Your task to perform on an android device: turn on sleep mode Image 0: 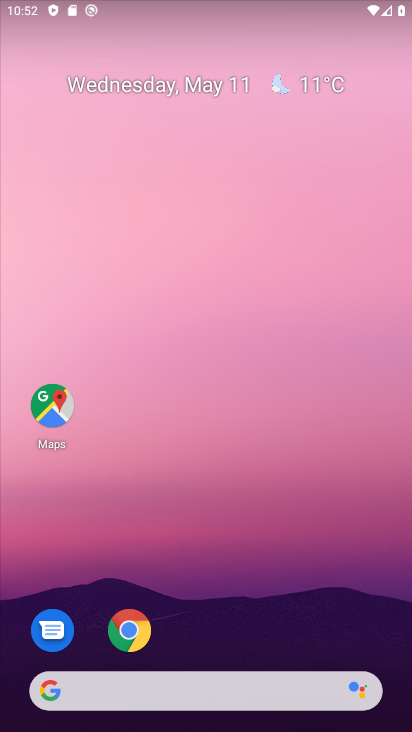
Step 0: drag from (241, 496) to (262, 310)
Your task to perform on an android device: turn on sleep mode Image 1: 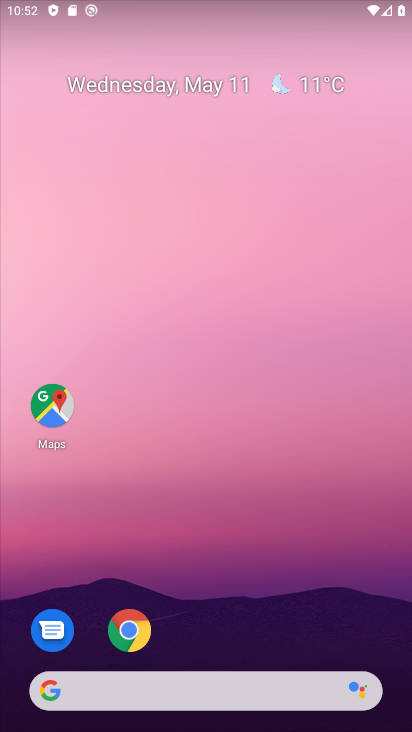
Step 1: drag from (201, 663) to (239, 353)
Your task to perform on an android device: turn on sleep mode Image 2: 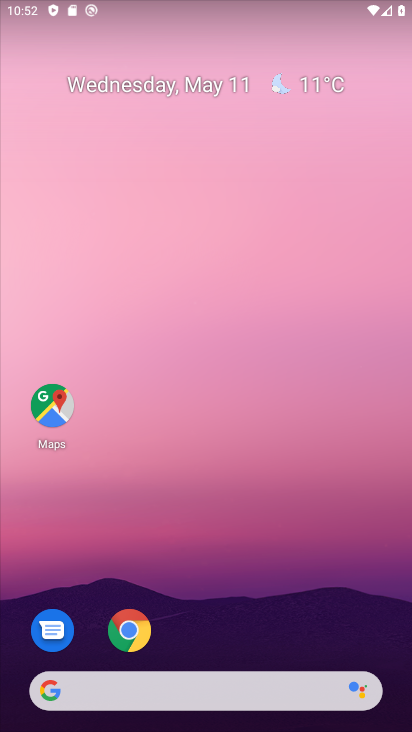
Step 2: drag from (231, 650) to (262, 226)
Your task to perform on an android device: turn on sleep mode Image 3: 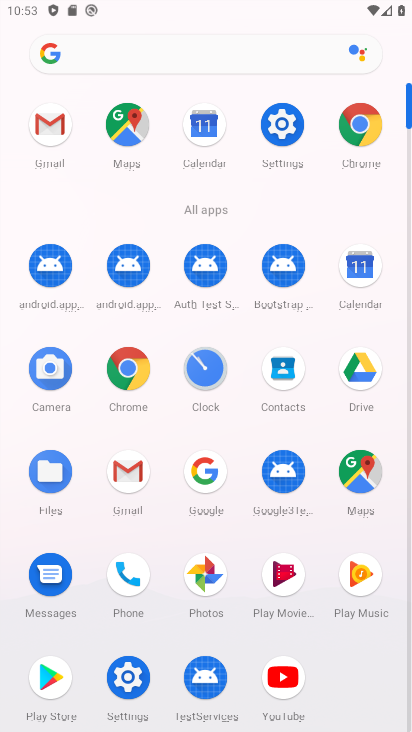
Step 3: click (141, 689)
Your task to perform on an android device: turn on sleep mode Image 4: 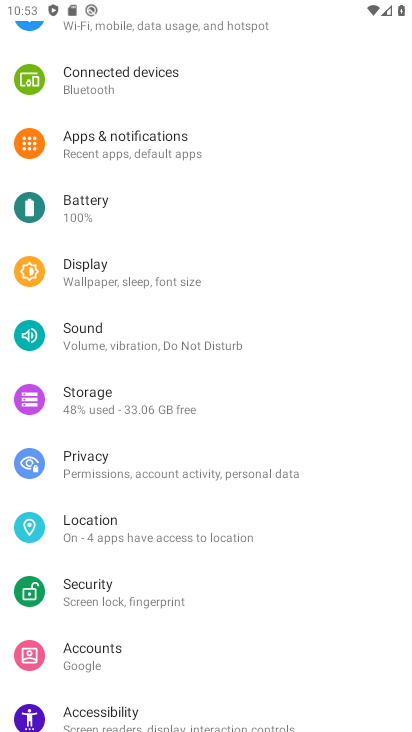
Step 4: click (114, 269)
Your task to perform on an android device: turn on sleep mode Image 5: 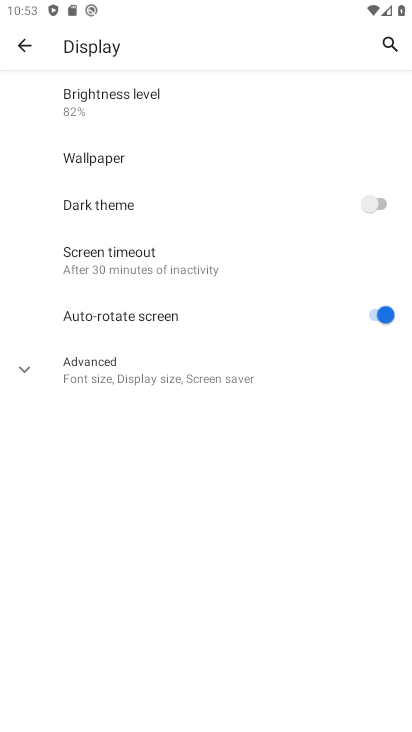
Step 5: task complete